Your task to perform on an android device: Open notification settings Image 0: 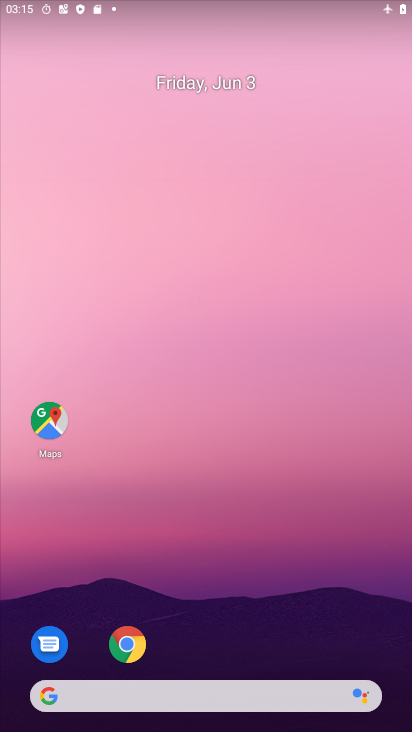
Step 0: drag from (233, 547) to (240, 185)
Your task to perform on an android device: Open notification settings Image 1: 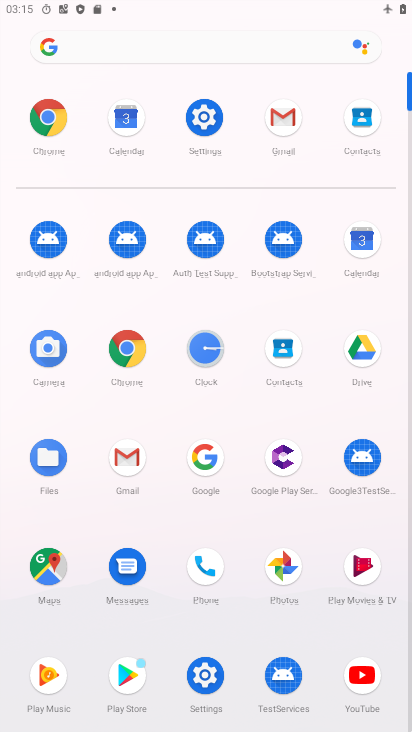
Step 1: click (207, 126)
Your task to perform on an android device: Open notification settings Image 2: 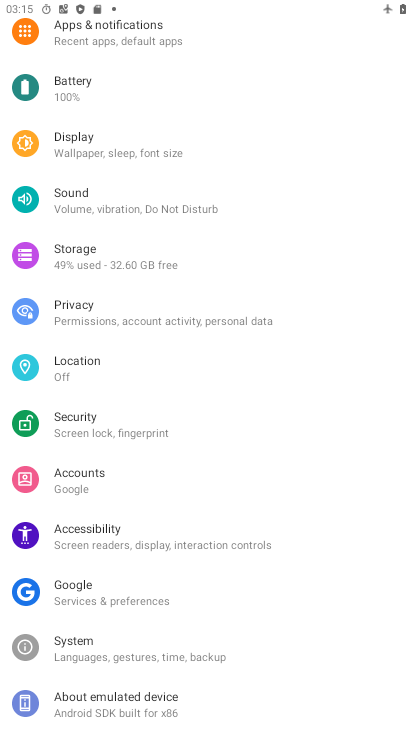
Step 2: click (156, 45)
Your task to perform on an android device: Open notification settings Image 3: 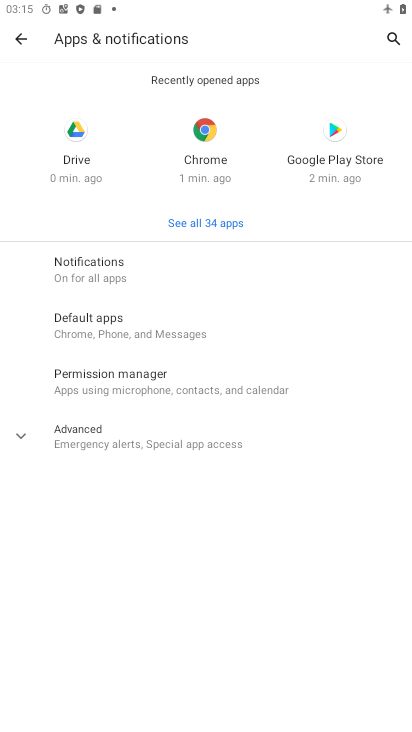
Step 3: click (105, 270)
Your task to perform on an android device: Open notification settings Image 4: 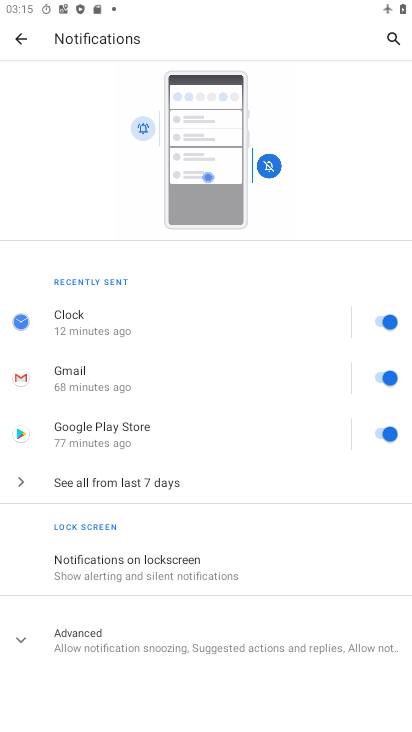
Step 4: task complete